Your task to perform on an android device: clear history in the chrome app Image 0: 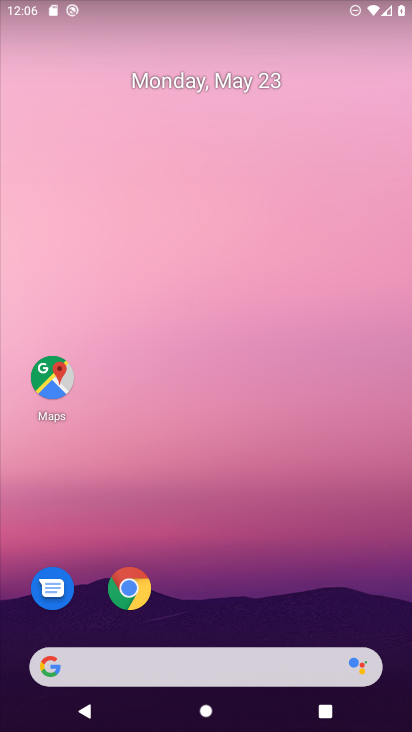
Step 0: click (123, 591)
Your task to perform on an android device: clear history in the chrome app Image 1: 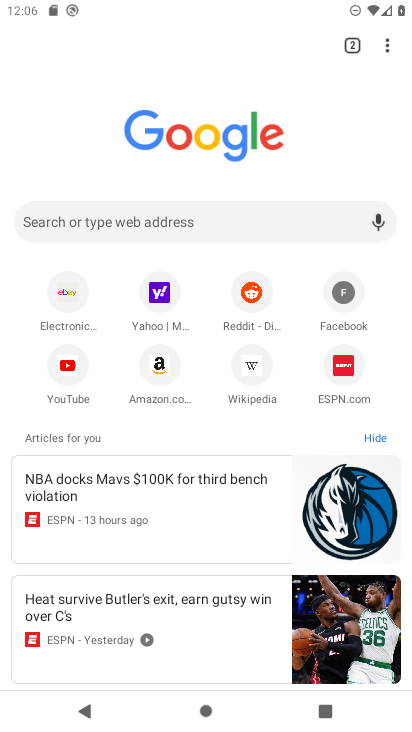
Step 1: click (382, 46)
Your task to perform on an android device: clear history in the chrome app Image 2: 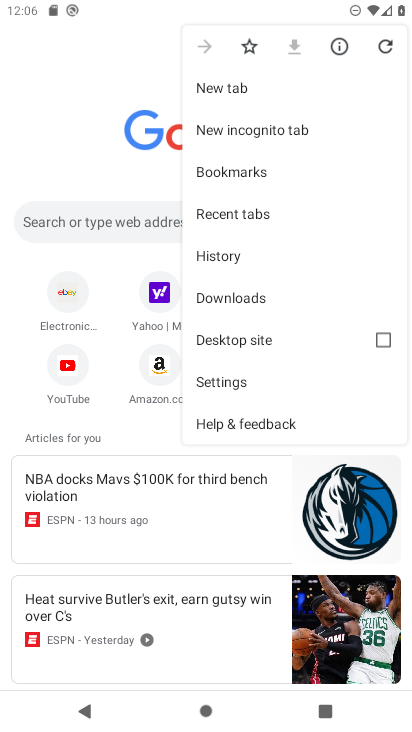
Step 2: click (239, 384)
Your task to perform on an android device: clear history in the chrome app Image 3: 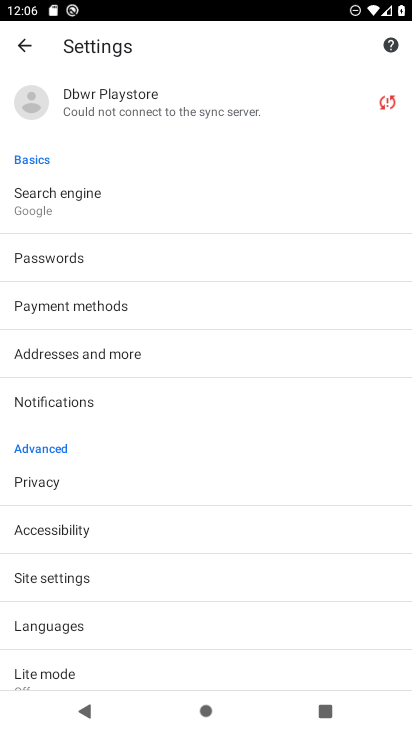
Step 3: click (21, 30)
Your task to perform on an android device: clear history in the chrome app Image 4: 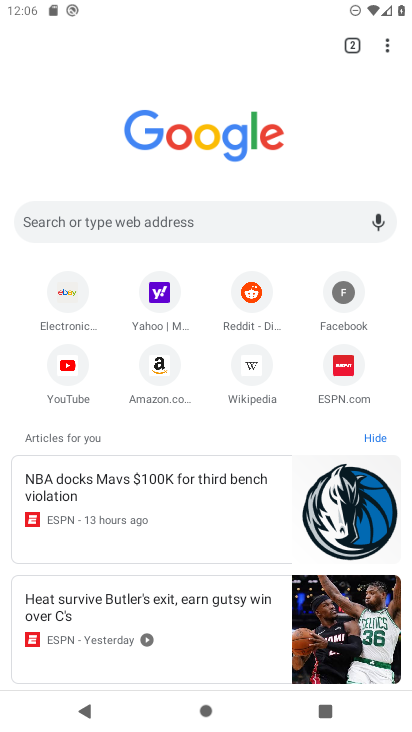
Step 4: click (389, 47)
Your task to perform on an android device: clear history in the chrome app Image 5: 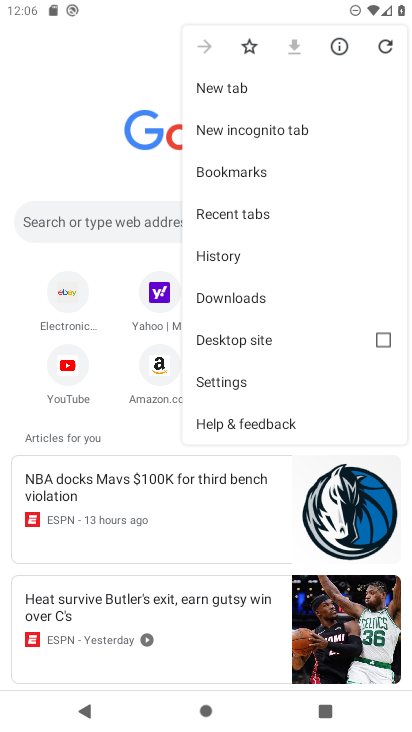
Step 5: click (227, 261)
Your task to perform on an android device: clear history in the chrome app Image 6: 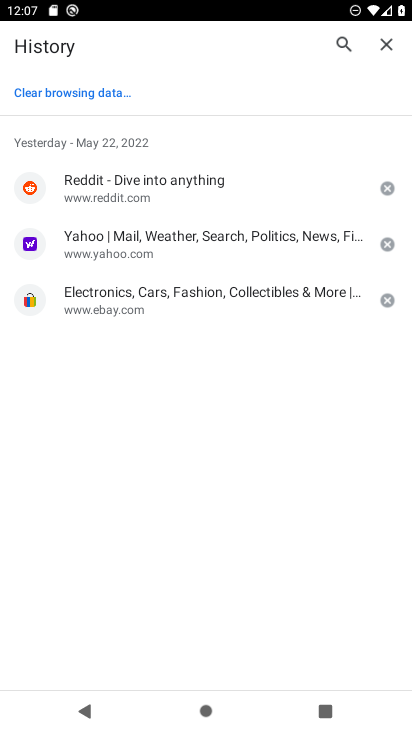
Step 6: click (93, 97)
Your task to perform on an android device: clear history in the chrome app Image 7: 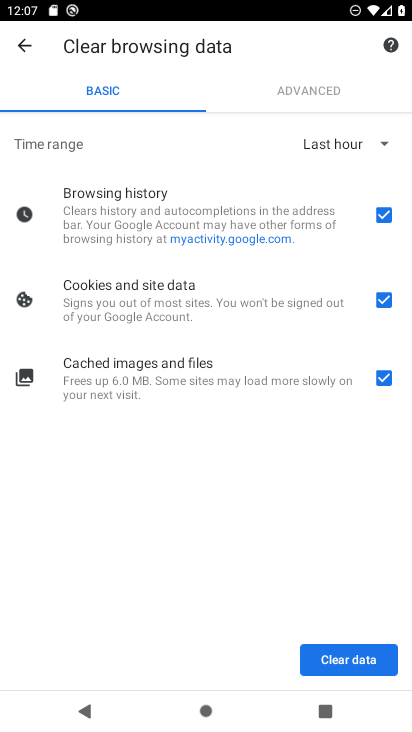
Step 7: click (370, 660)
Your task to perform on an android device: clear history in the chrome app Image 8: 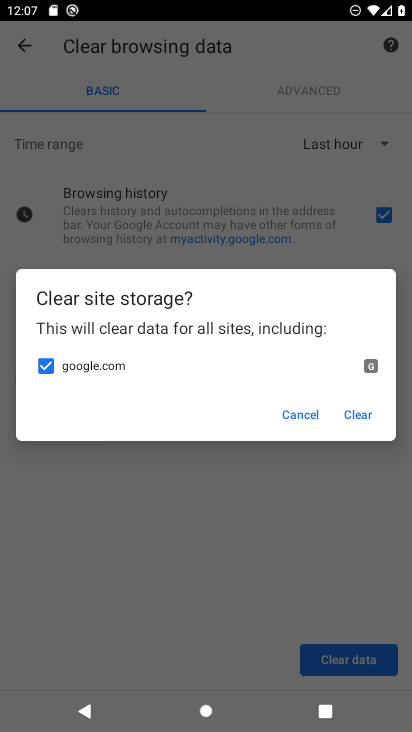
Step 8: click (359, 416)
Your task to perform on an android device: clear history in the chrome app Image 9: 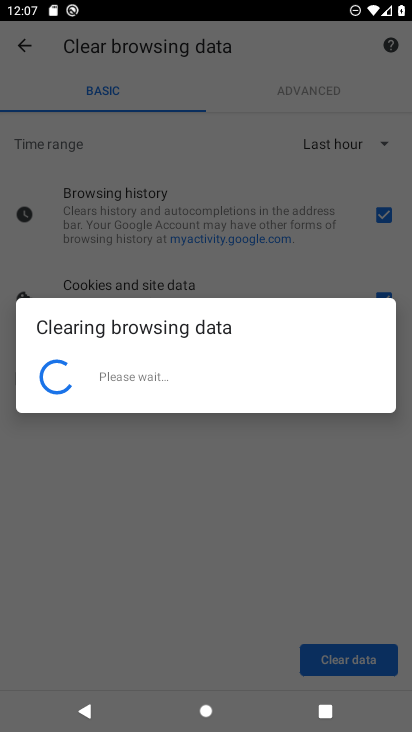
Step 9: task complete